Your task to perform on an android device: turn off data saver in the chrome app Image 0: 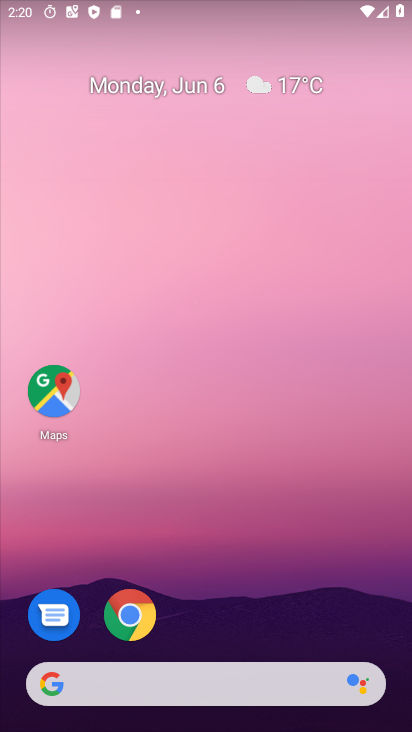
Step 0: drag from (200, 223) to (227, 141)
Your task to perform on an android device: turn off data saver in the chrome app Image 1: 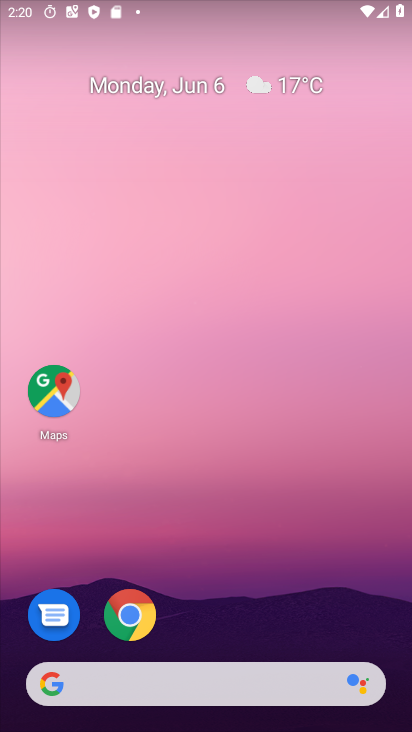
Step 1: drag from (183, 610) to (302, 124)
Your task to perform on an android device: turn off data saver in the chrome app Image 2: 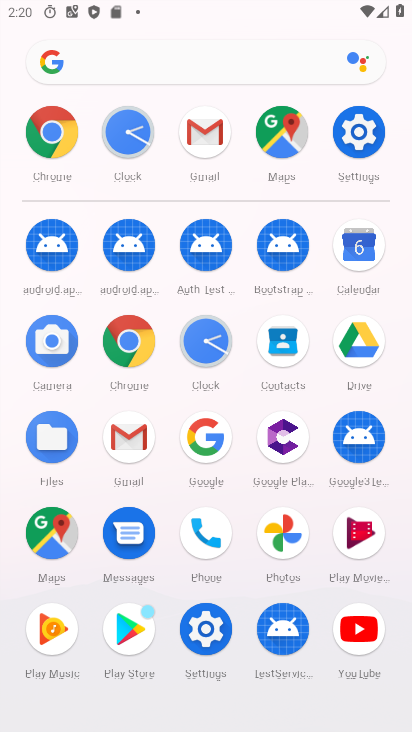
Step 2: click (121, 334)
Your task to perform on an android device: turn off data saver in the chrome app Image 3: 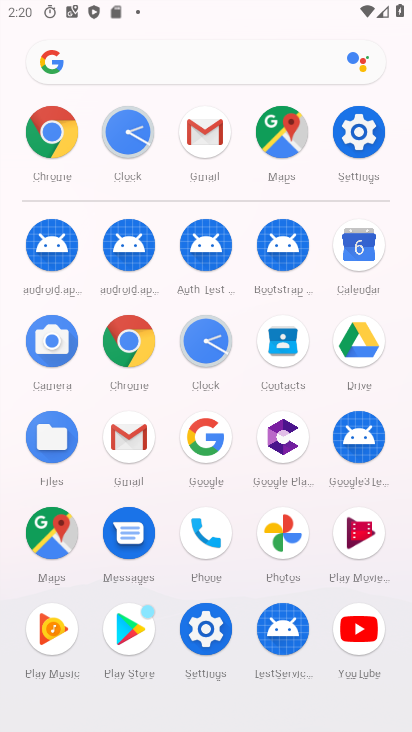
Step 3: click (121, 334)
Your task to perform on an android device: turn off data saver in the chrome app Image 4: 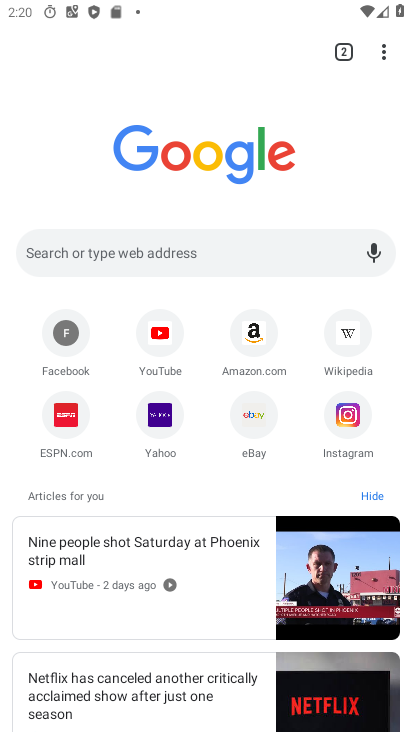
Step 4: drag from (233, 452) to (230, 172)
Your task to perform on an android device: turn off data saver in the chrome app Image 5: 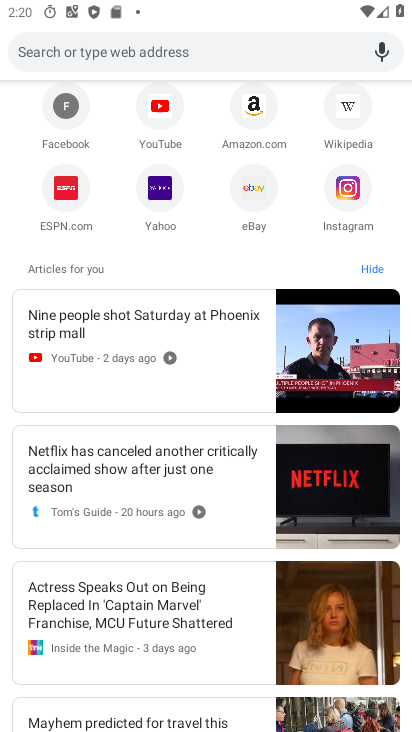
Step 5: drag from (234, 222) to (270, 611)
Your task to perform on an android device: turn off data saver in the chrome app Image 6: 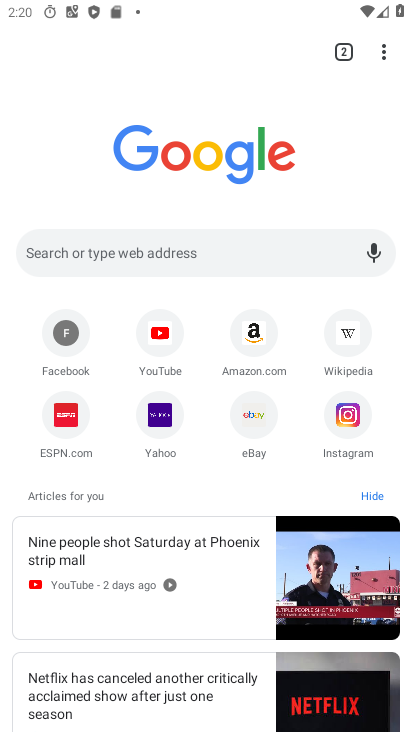
Step 6: drag from (386, 54) to (235, 438)
Your task to perform on an android device: turn off data saver in the chrome app Image 7: 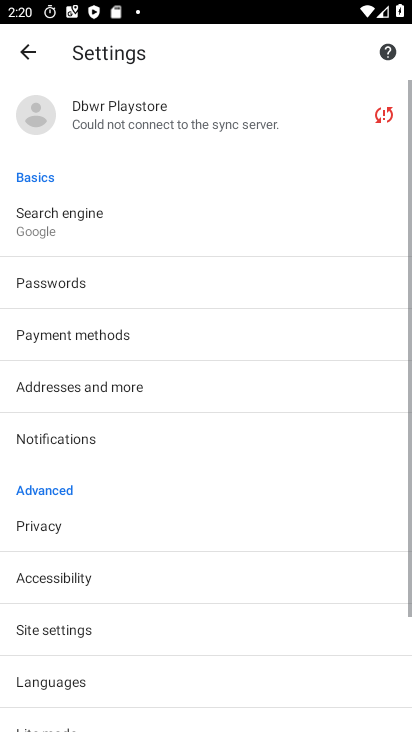
Step 7: drag from (187, 563) to (282, 81)
Your task to perform on an android device: turn off data saver in the chrome app Image 8: 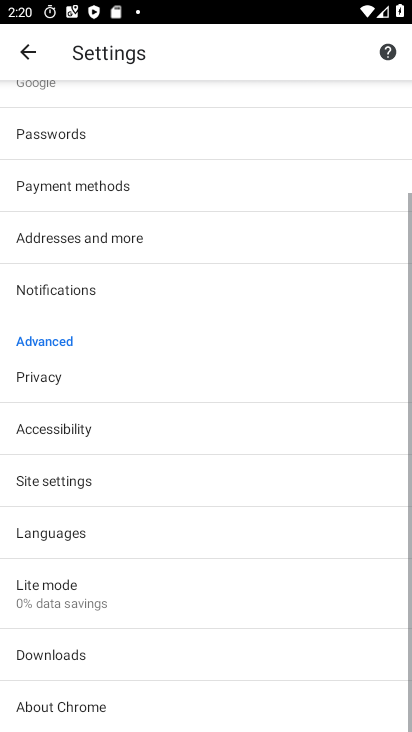
Step 8: click (113, 596)
Your task to perform on an android device: turn off data saver in the chrome app Image 9: 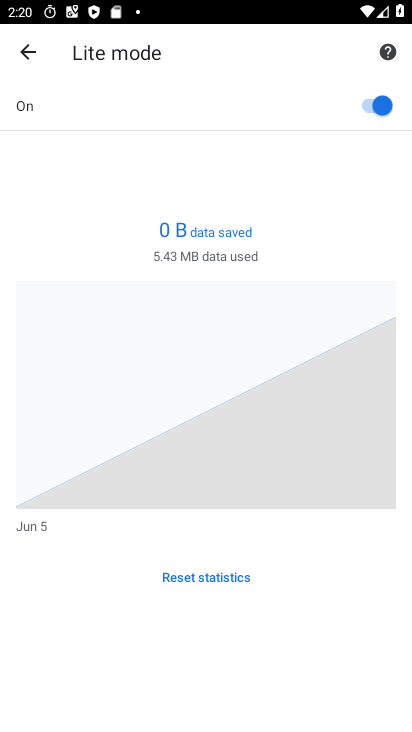
Step 9: click (378, 106)
Your task to perform on an android device: turn off data saver in the chrome app Image 10: 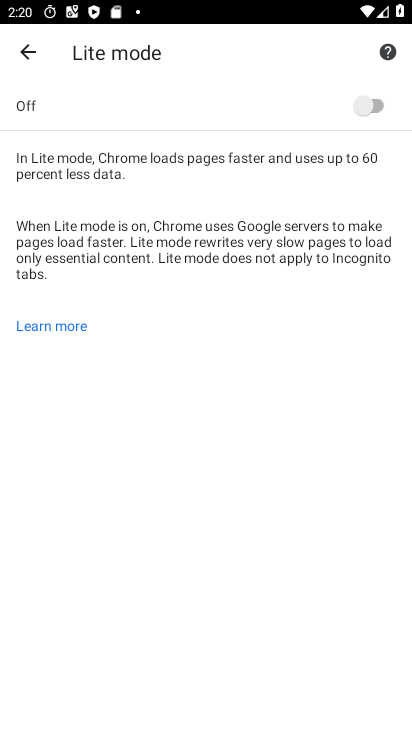
Step 10: task complete